Your task to perform on an android device: toggle javascript in the chrome app Image 0: 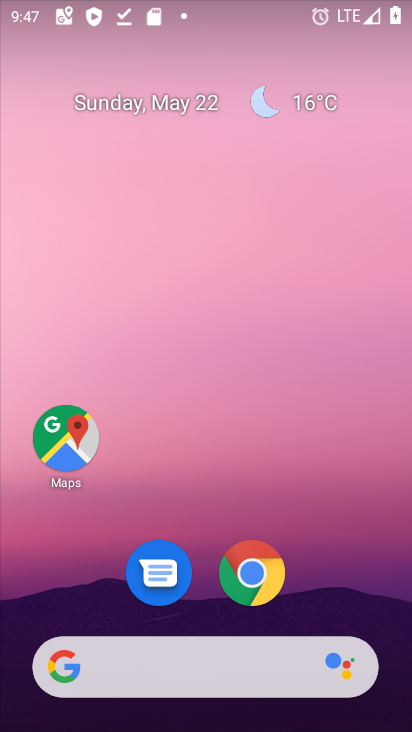
Step 0: drag from (271, 640) to (200, 24)
Your task to perform on an android device: toggle javascript in the chrome app Image 1: 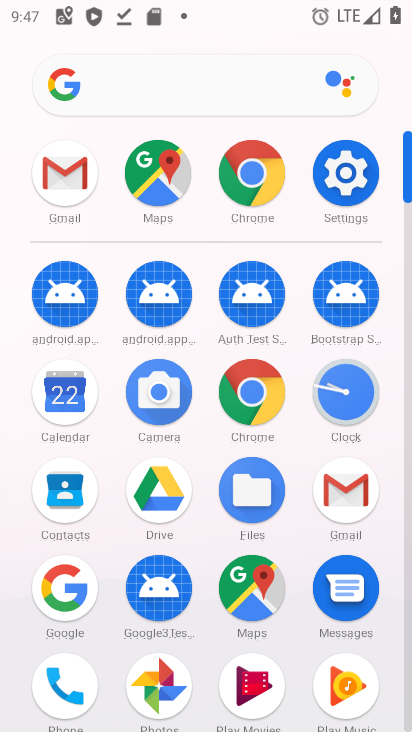
Step 1: click (277, 396)
Your task to perform on an android device: toggle javascript in the chrome app Image 2: 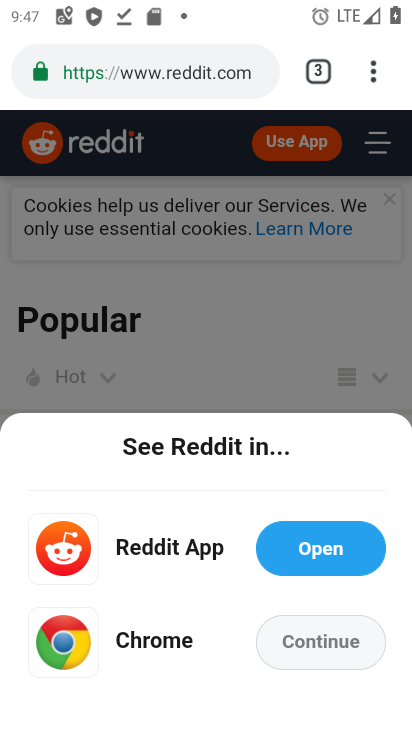
Step 2: drag from (377, 64) to (198, 569)
Your task to perform on an android device: toggle javascript in the chrome app Image 3: 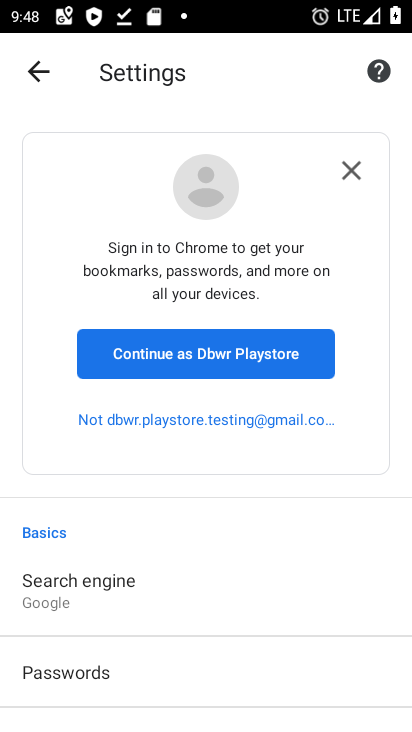
Step 3: drag from (192, 679) to (49, 87)
Your task to perform on an android device: toggle javascript in the chrome app Image 4: 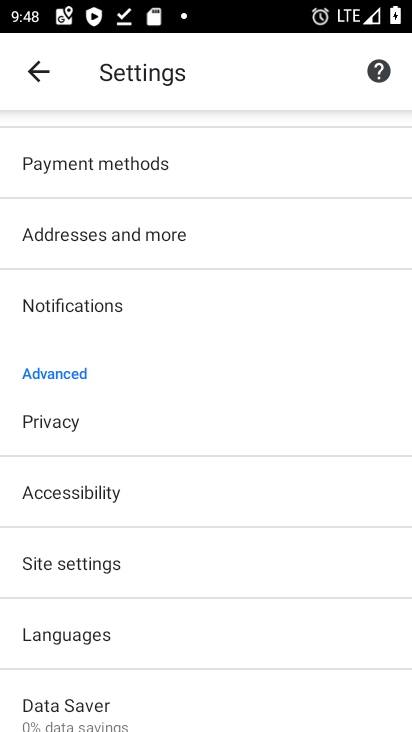
Step 4: click (127, 543)
Your task to perform on an android device: toggle javascript in the chrome app Image 5: 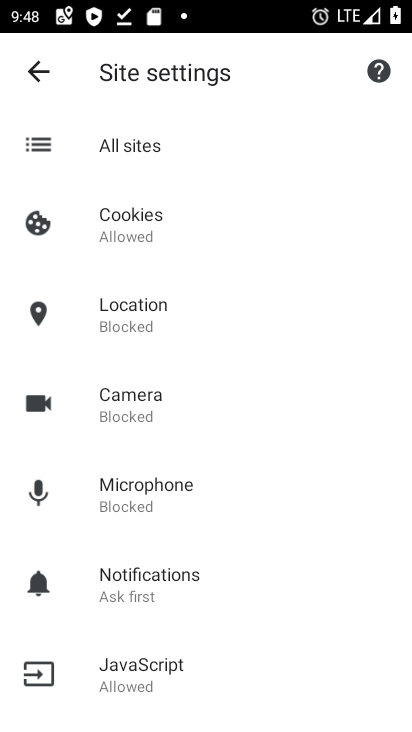
Step 5: click (200, 639)
Your task to perform on an android device: toggle javascript in the chrome app Image 6: 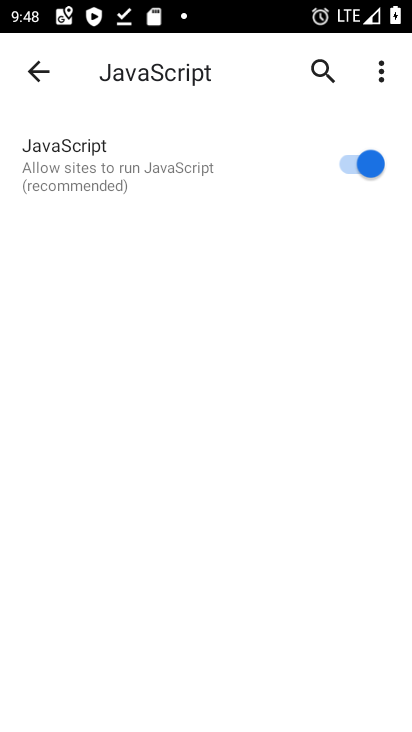
Step 6: click (348, 160)
Your task to perform on an android device: toggle javascript in the chrome app Image 7: 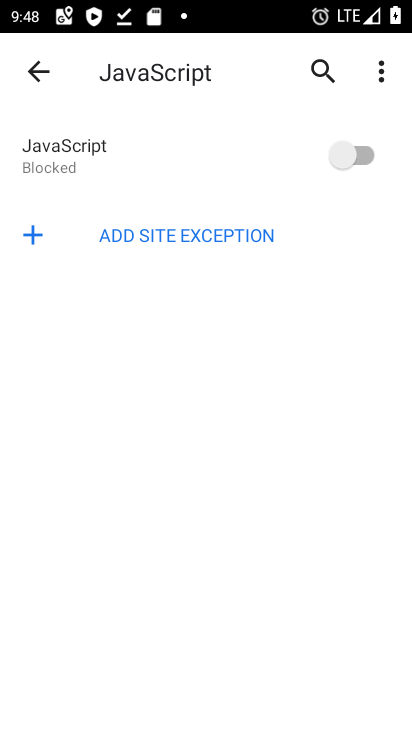
Step 7: task complete